Your task to perform on an android device: clear all cookies in the chrome app Image 0: 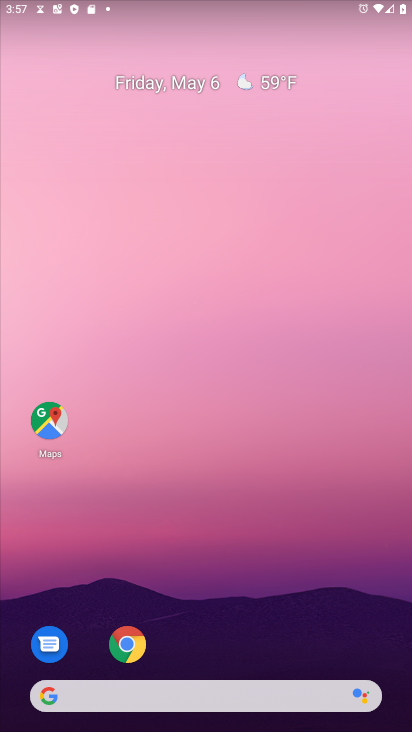
Step 0: click (127, 643)
Your task to perform on an android device: clear all cookies in the chrome app Image 1: 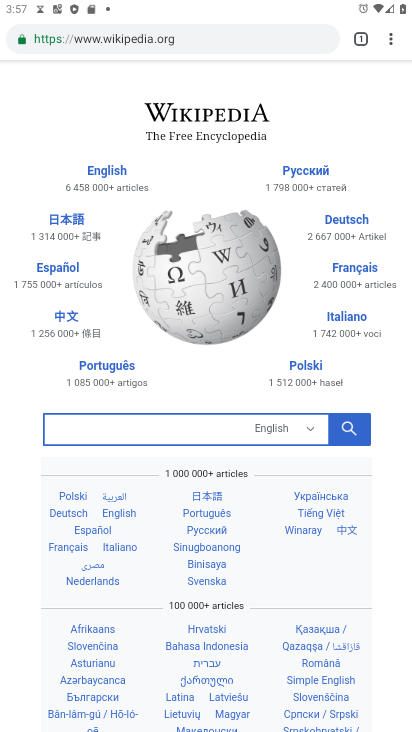
Step 1: click (391, 38)
Your task to perform on an android device: clear all cookies in the chrome app Image 2: 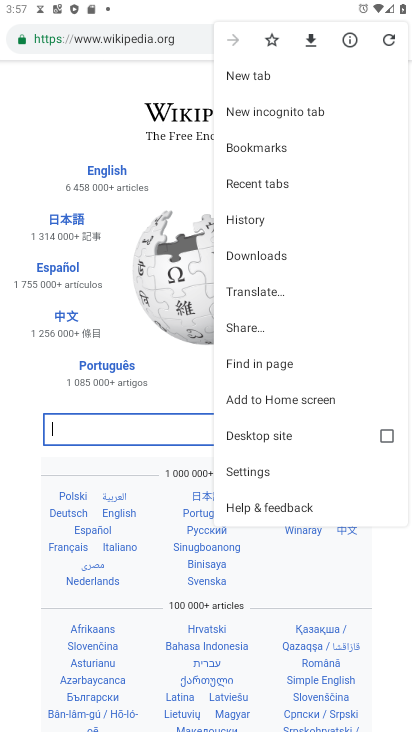
Step 2: click (248, 470)
Your task to perform on an android device: clear all cookies in the chrome app Image 3: 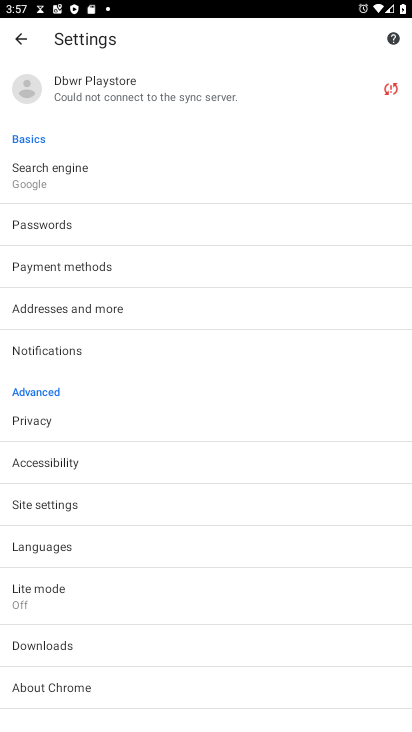
Step 3: click (34, 423)
Your task to perform on an android device: clear all cookies in the chrome app Image 4: 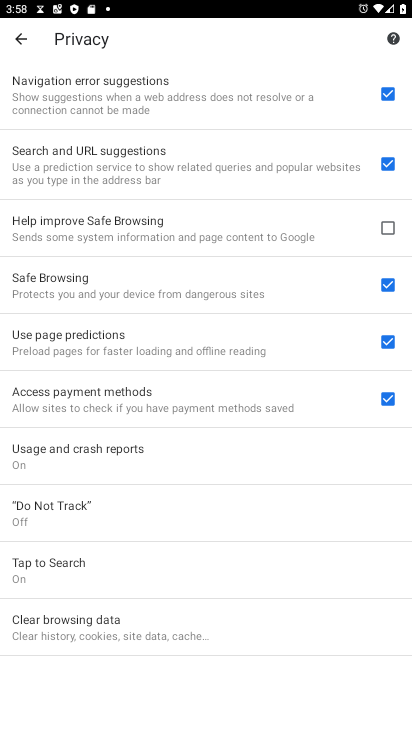
Step 4: click (69, 616)
Your task to perform on an android device: clear all cookies in the chrome app Image 5: 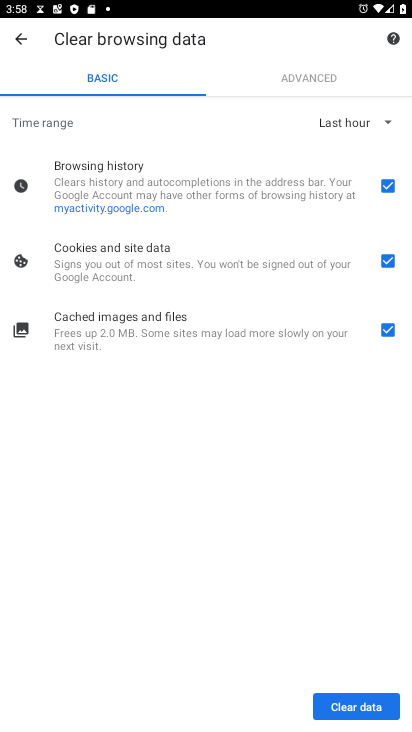
Step 5: click (381, 124)
Your task to perform on an android device: clear all cookies in the chrome app Image 6: 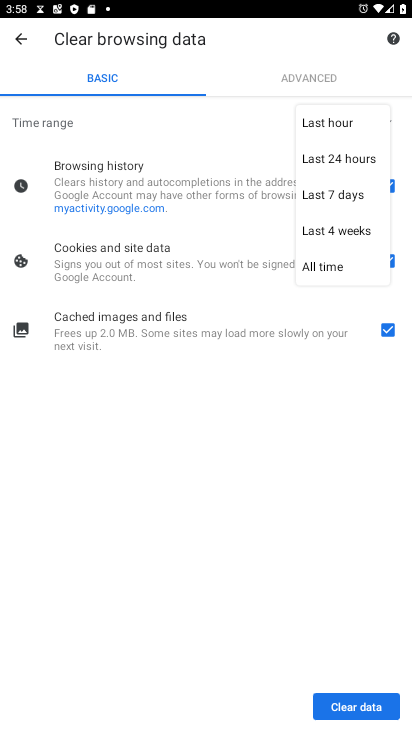
Step 6: click (340, 269)
Your task to perform on an android device: clear all cookies in the chrome app Image 7: 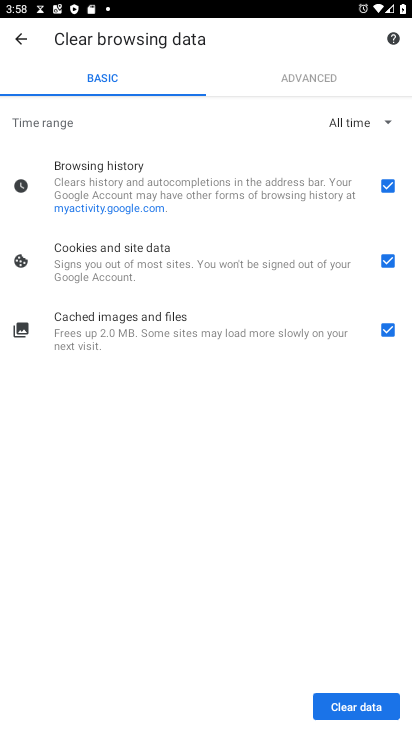
Step 7: click (351, 714)
Your task to perform on an android device: clear all cookies in the chrome app Image 8: 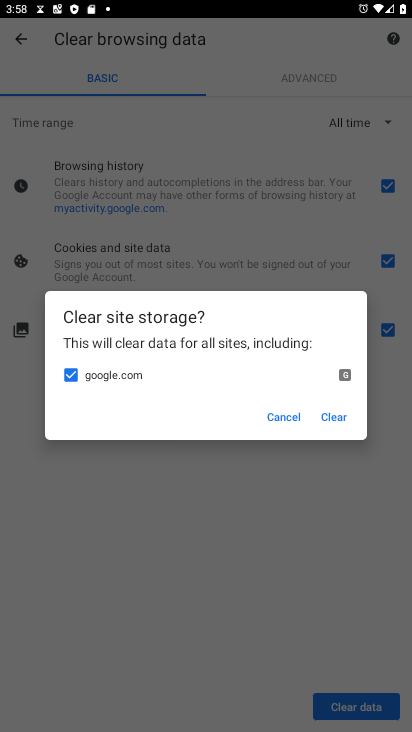
Step 8: click (334, 422)
Your task to perform on an android device: clear all cookies in the chrome app Image 9: 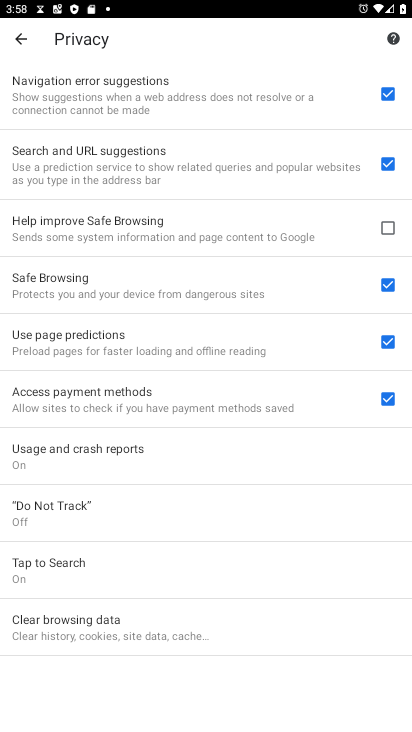
Step 9: task complete